Your task to perform on an android device: toggle translation in the chrome app Image 0: 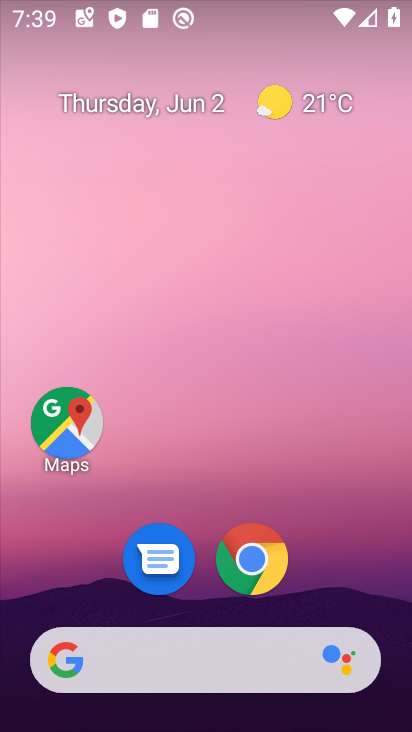
Step 0: click (252, 561)
Your task to perform on an android device: toggle translation in the chrome app Image 1: 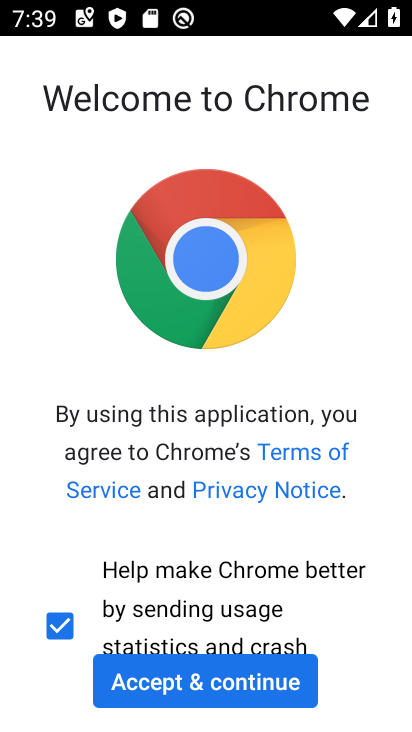
Step 1: click (204, 683)
Your task to perform on an android device: toggle translation in the chrome app Image 2: 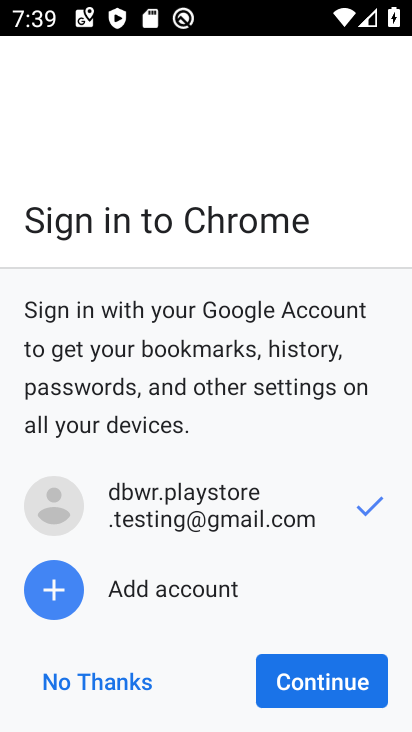
Step 2: click (299, 681)
Your task to perform on an android device: toggle translation in the chrome app Image 3: 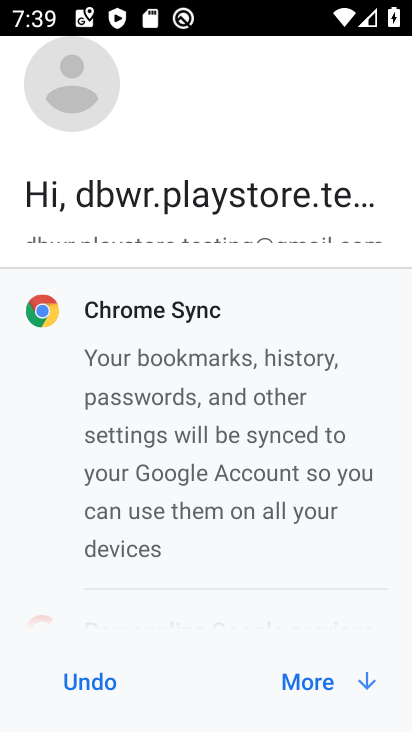
Step 3: click (365, 672)
Your task to perform on an android device: toggle translation in the chrome app Image 4: 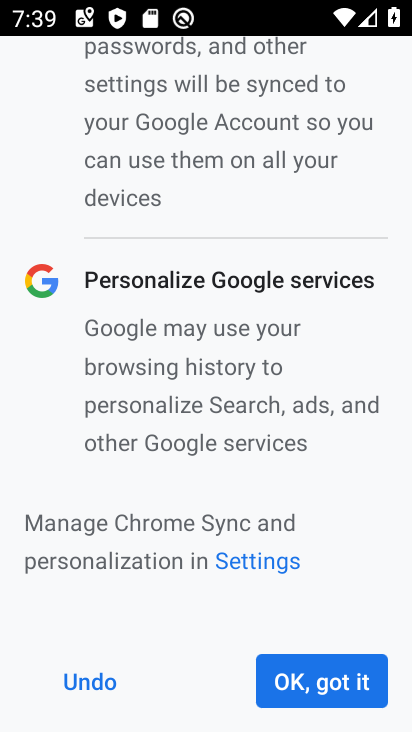
Step 4: click (351, 689)
Your task to perform on an android device: toggle translation in the chrome app Image 5: 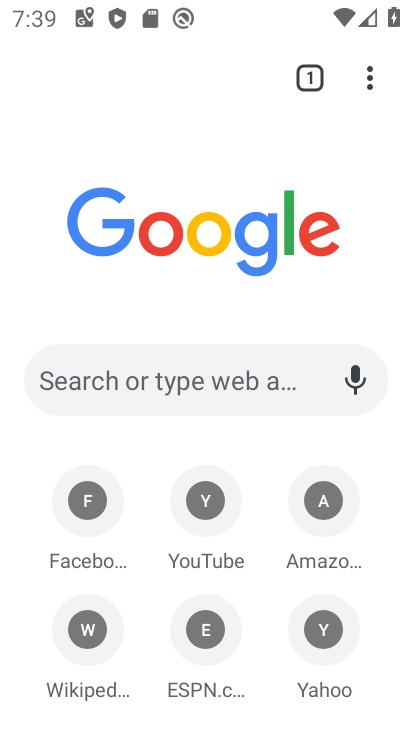
Step 5: click (369, 81)
Your task to perform on an android device: toggle translation in the chrome app Image 6: 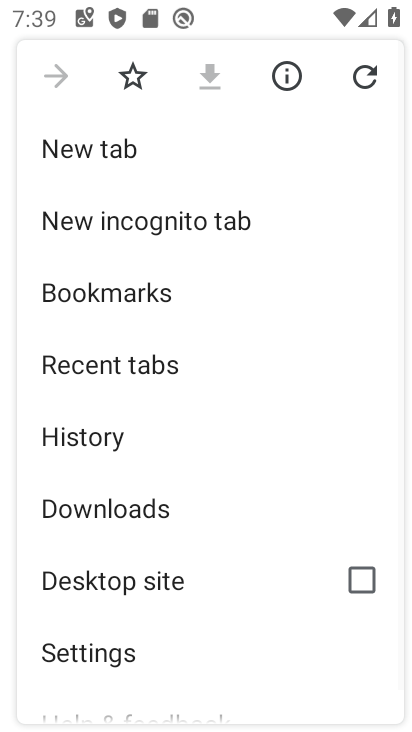
Step 6: click (70, 659)
Your task to perform on an android device: toggle translation in the chrome app Image 7: 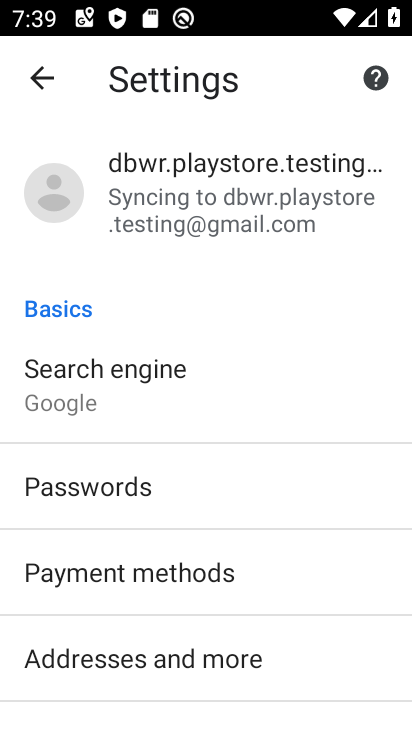
Step 7: drag from (278, 533) to (259, 341)
Your task to perform on an android device: toggle translation in the chrome app Image 8: 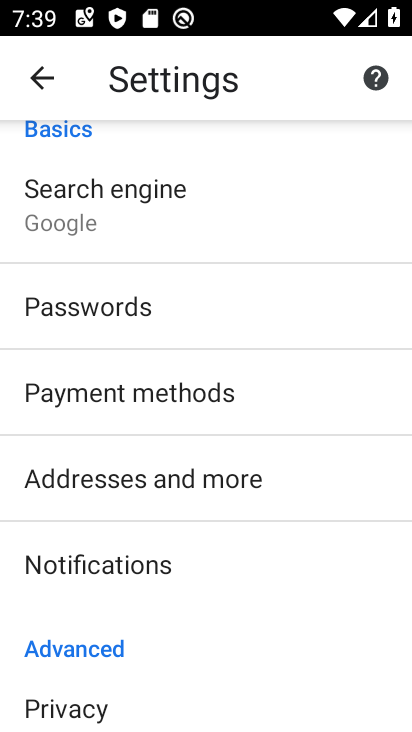
Step 8: drag from (258, 593) to (207, 271)
Your task to perform on an android device: toggle translation in the chrome app Image 9: 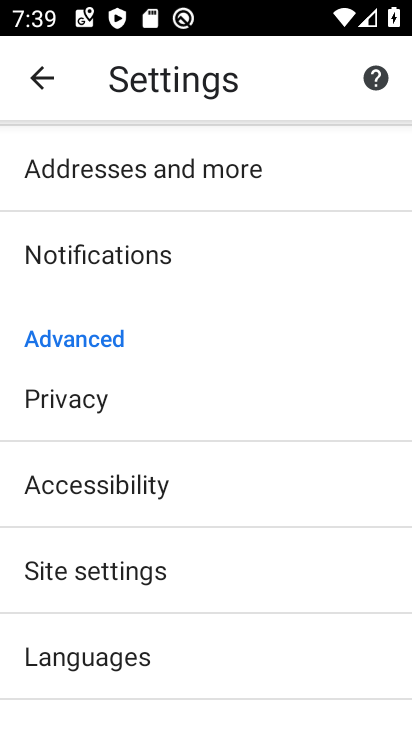
Step 9: click (98, 658)
Your task to perform on an android device: toggle translation in the chrome app Image 10: 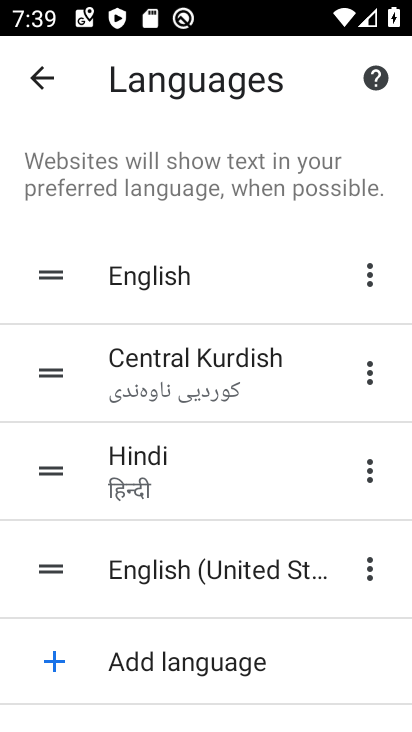
Step 10: drag from (208, 592) to (168, 262)
Your task to perform on an android device: toggle translation in the chrome app Image 11: 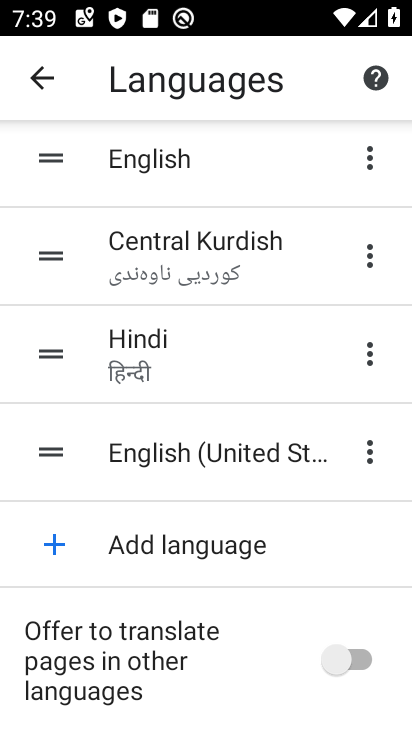
Step 11: click (334, 662)
Your task to perform on an android device: toggle translation in the chrome app Image 12: 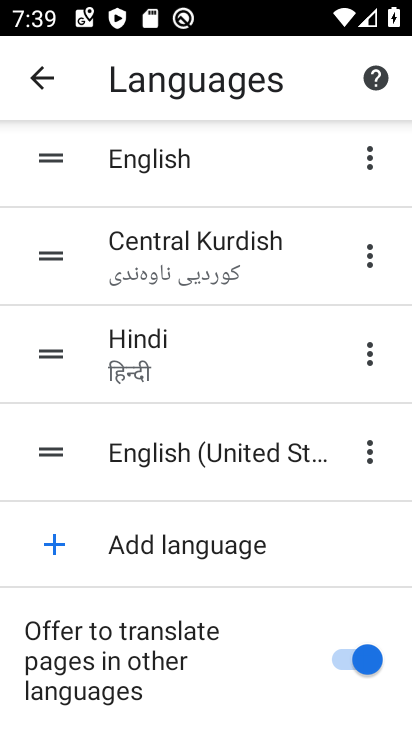
Step 12: task complete